Your task to perform on an android device: delete location history Image 0: 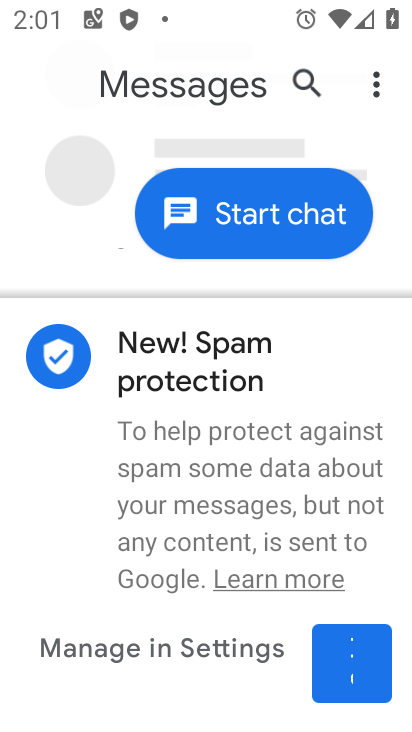
Step 0: press home button
Your task to perform on an android device: delete location history Image 1: 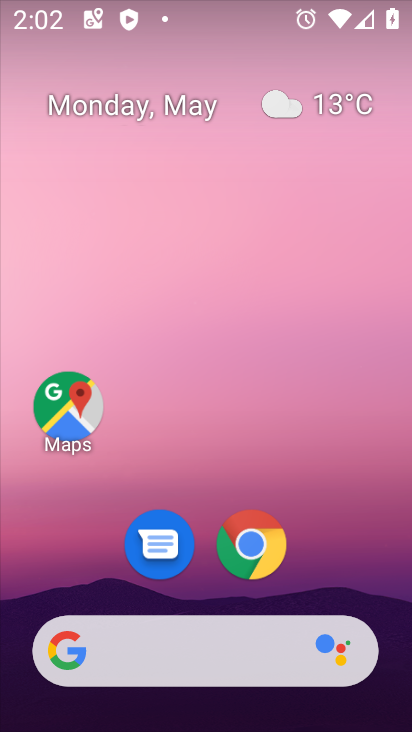
Step 1: click (65, 401)
Your task to perform on an android device: delete location history Image 2: 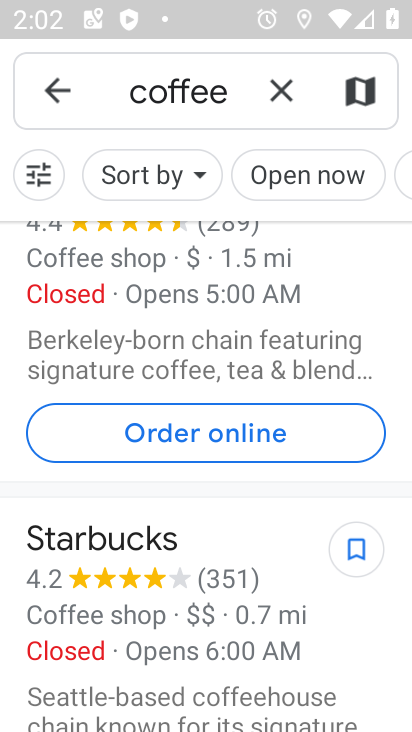
Step 2: click (286, 85)
Your task to perform on an android device: delete location history Image 3: 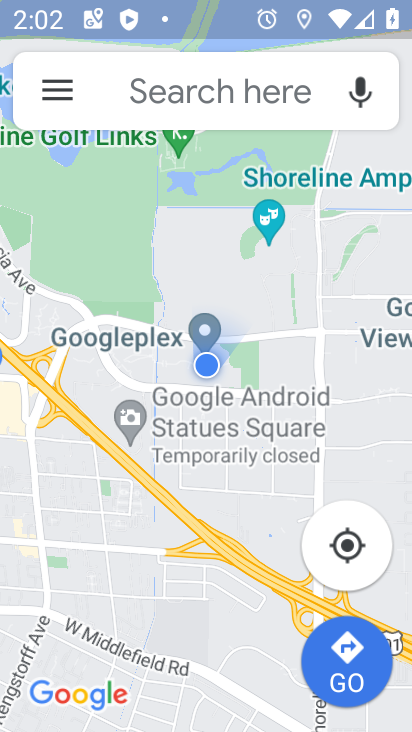
Step 3: click (59, 95)
Your task to perform on an android device: delete location history Image 4: 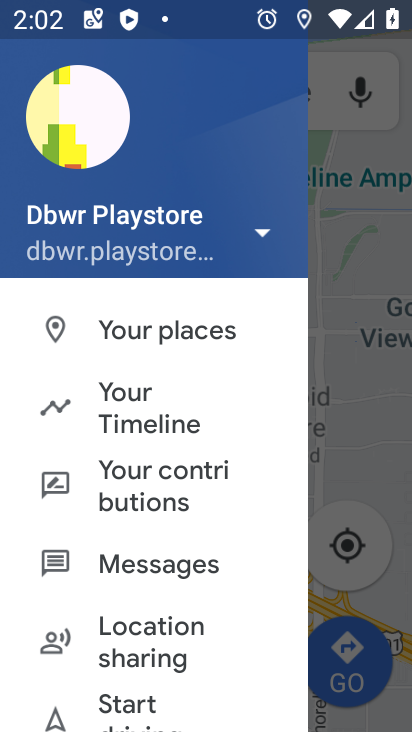
Step 4: drag from (249, 652) to (192, 221)
Your task to perform on an android device: delete location history Image 5: 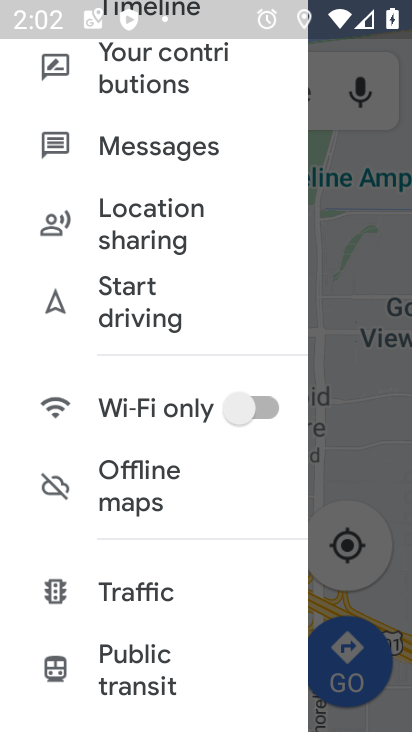
Step 5: drag from (233, 617) to (250, 202)
Your task to perform on an android device: delete location history Image 6: 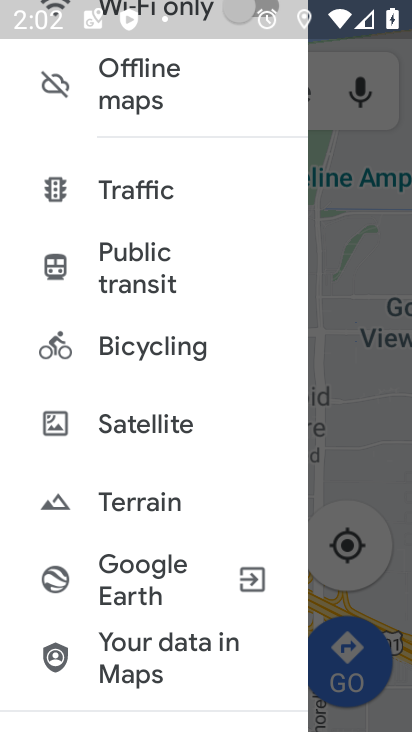
Step 6: drag from (238, 523) to (252, 117)
Your task to perform on an android device: delete location history Image 7: 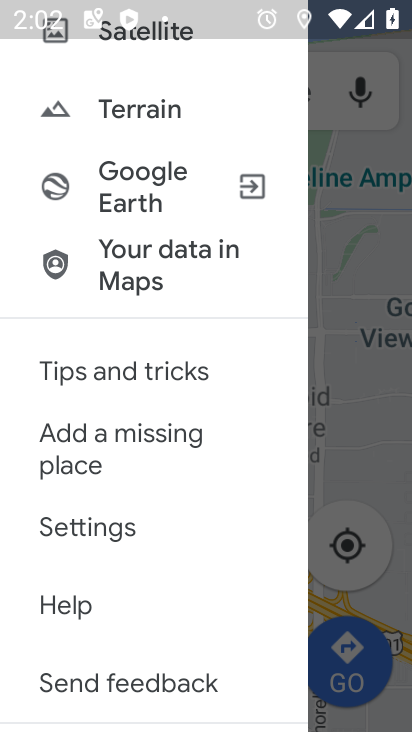
Step 7: click (75, 521)
Your task to perform on an android device: delete location history Image 8: 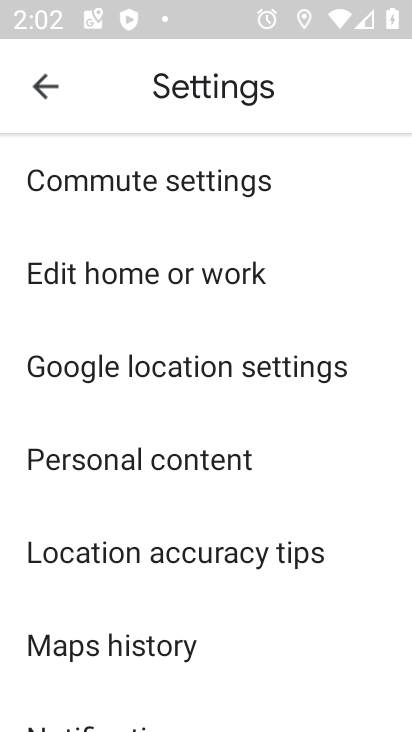
Step 8: click (122, 454)
Your task to perform on an android device: delete location history Image 9: 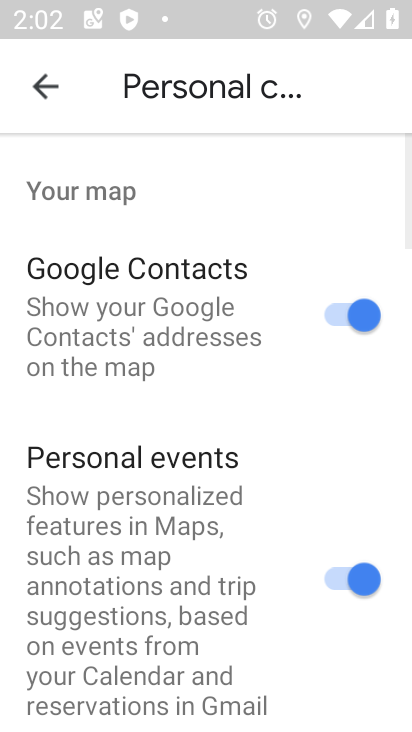
Step 9: drag from (277, 655) to (309, 200)
Your task to perform on an android device: delete location history Image 10: 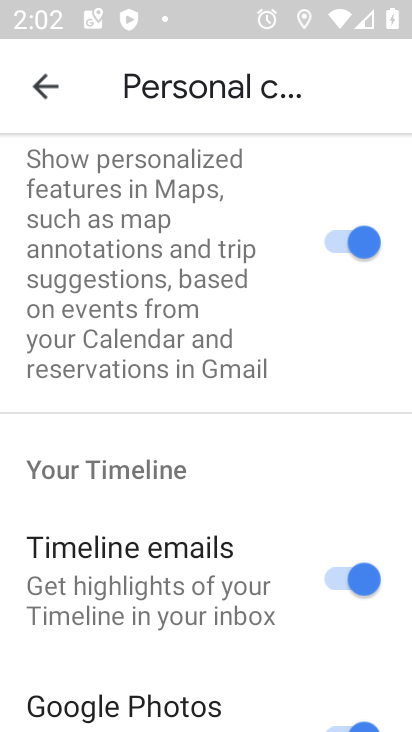
Step 10: drag from (303, 559) to (302, 190)
Your task to perform on an android device: delete location history Image 11: 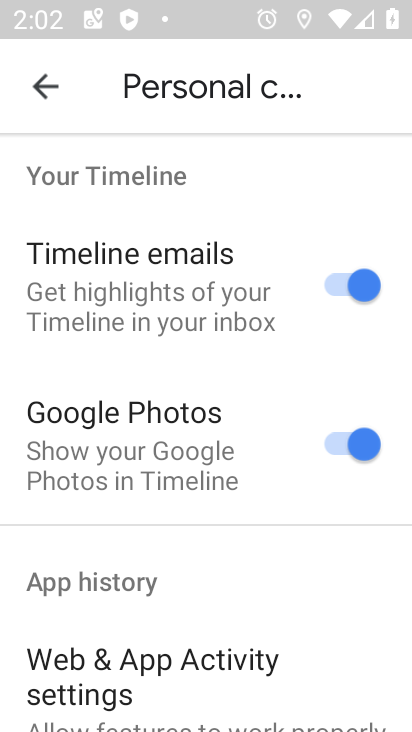
Step 11: drag from (315, 548) to (293, 180)
Your task to perform on an android device: delete location history Image 12: 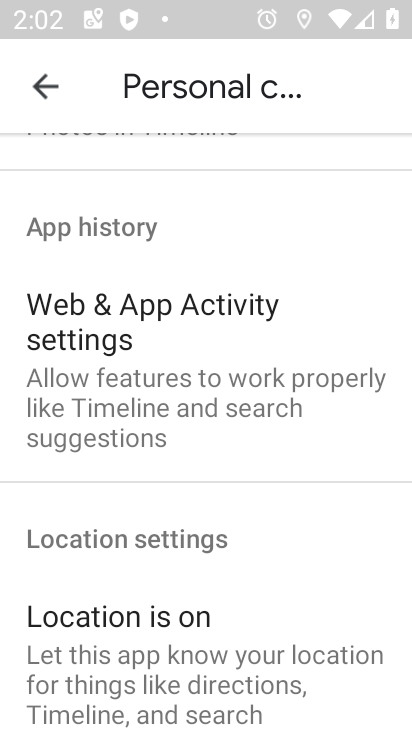
Step 12: drag from (322, 618) to (304, 254)
Your task to perform on an android device: delete location history Image 13: 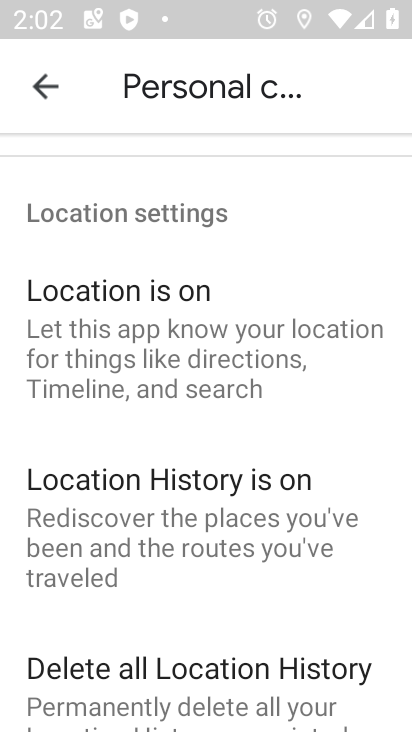
Step 13: drag from (315, 574) to (308, 304)
Your task to perform on an android device: delete location history Image 14: 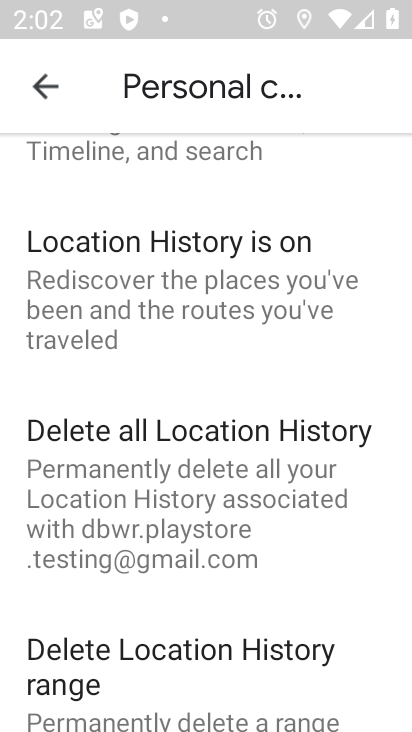
Step 14: click (72, 452)
Your task to perform on an android device: delete location history Image 15: 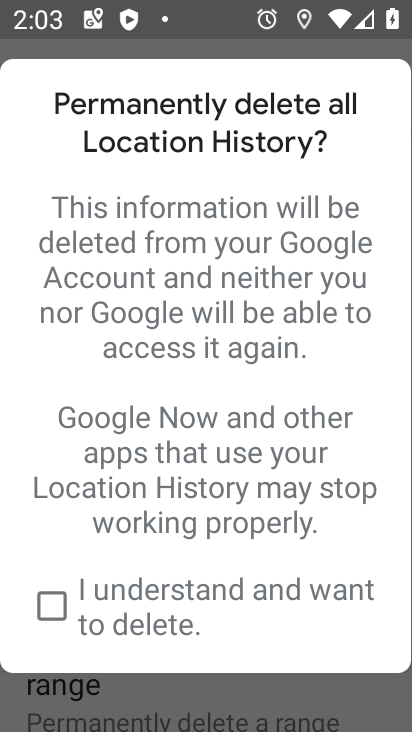
Step 15: click (48, 609)
Your task to perform on an android device: delete location history Image 16: 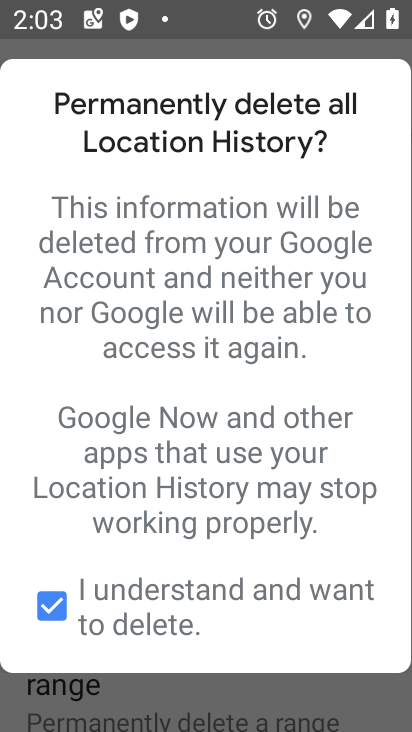
Step 16: task complete